Your task to perform on an android device: Open Chrome and go to settings Image 0: 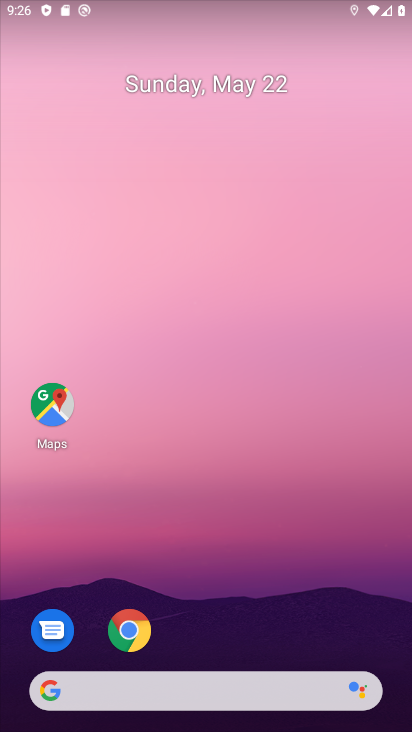
Step 0: drag from (360, 614) to (357, 213)
Your task to perform on an android device: Open Chrome and go to settings Image 1: 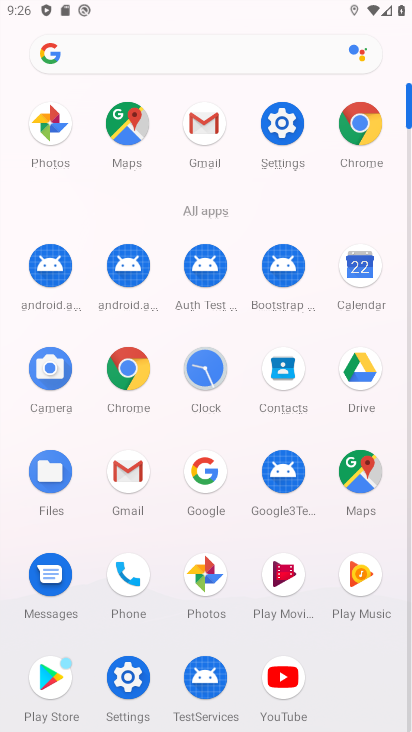
Step 1: click (135, 375)
Your task to perform on an android device: Open Chrome and go to settings Image 2: 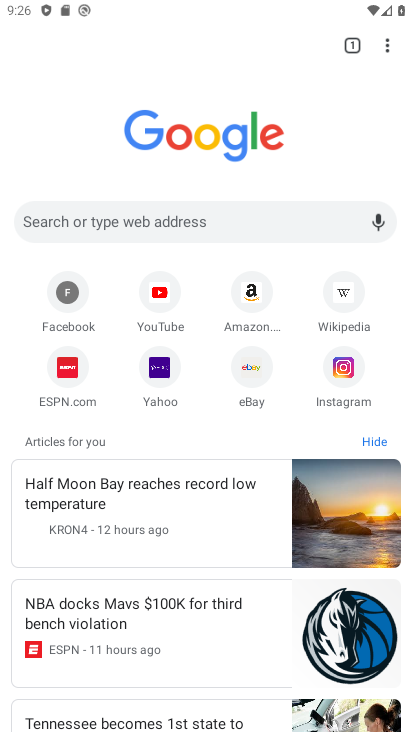
Step 2: click (390, 48)
Your task to perform on an android device: Open Chrome and go to settings Image 3: 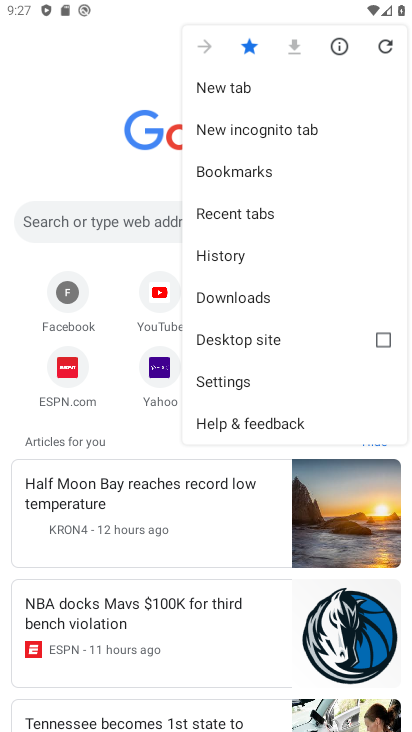
Step 3: click (254, 382)
Your task to perform on an android device: Open Chrome and go to settings Image 4: 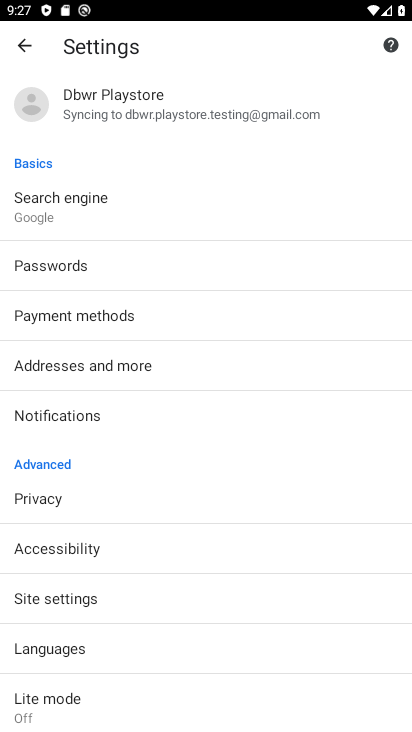
Step 4: task complete